Your task to perform on an android device: toggle notification dots Image 0: 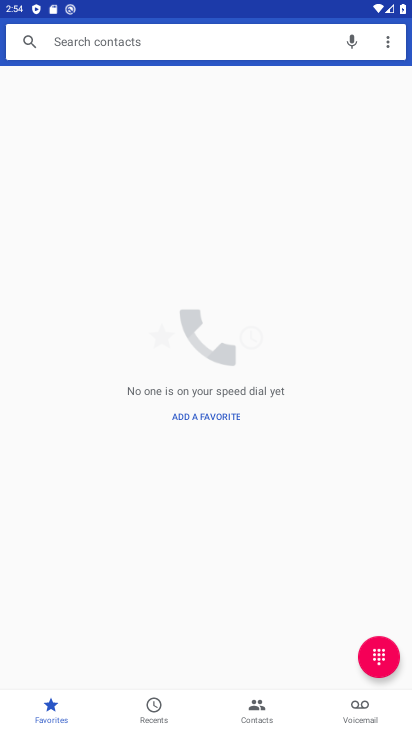
Step 0: press home button
Your task to perform on an android device: toggle notification dots Image 1: 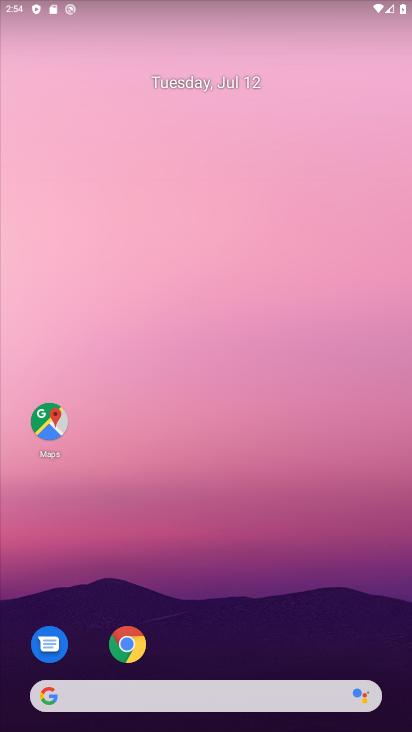
Step 1: click (204, 95)
Your task to perform on an android device: toggle notification dots Image 2: 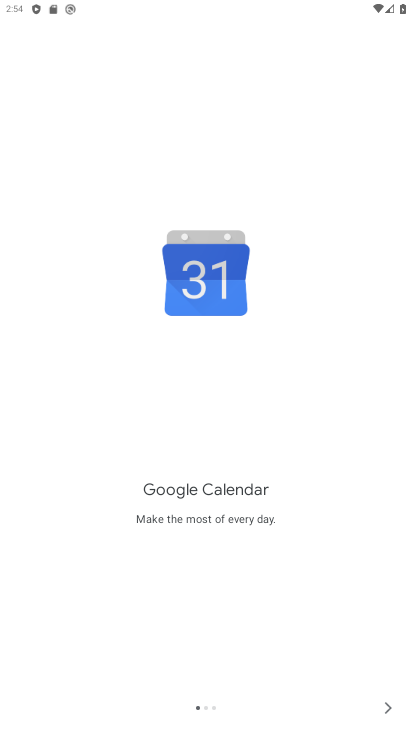
Step 2: press home button
Your task to perform on an android device: toggle notification dots Image 3: 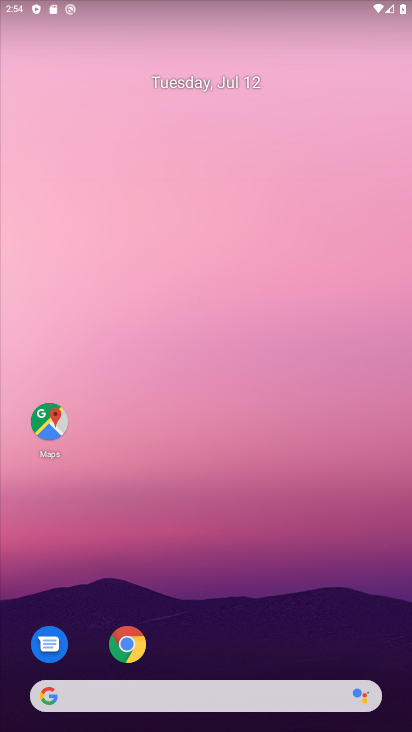
Step 3: drag from (276, 605) to (168, 150)
Your task to perform on an android device: toggle notification dots Image 4: 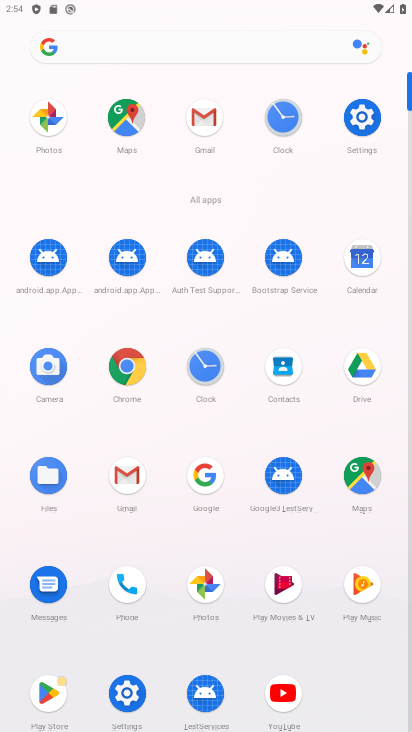
Step 4: click (373, 119)
Your task to perform on an android device: toggle notification dots Image 5: 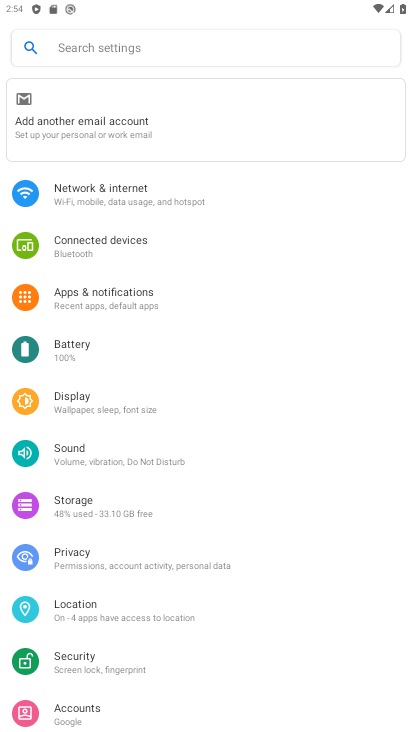
Step 5: click (93, 294)
Your task to perform on an android device: toggle notification dots Image 6: 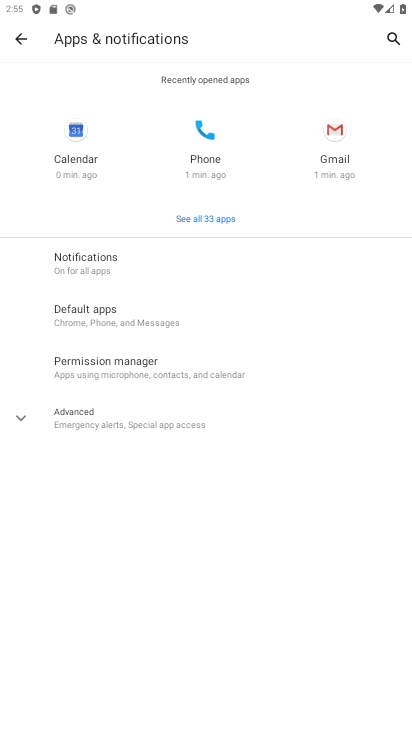
Step 6: click (105, 257)
Your task to perform on an android device: toggle notification dots Image 7: 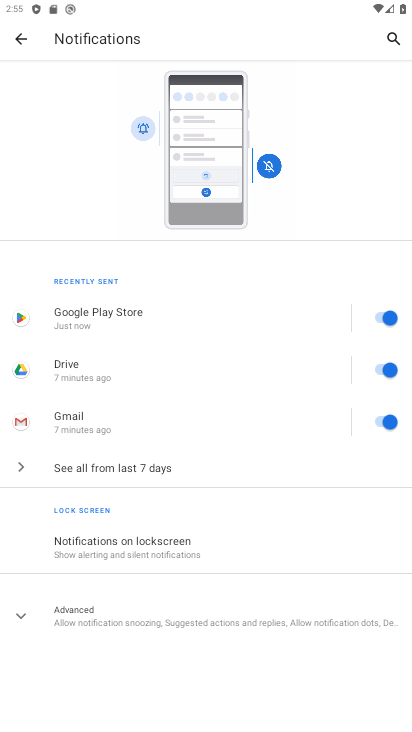
Step 7: click (109, 619)
Your task to perform on an android device: toggle notification dots Image 8: 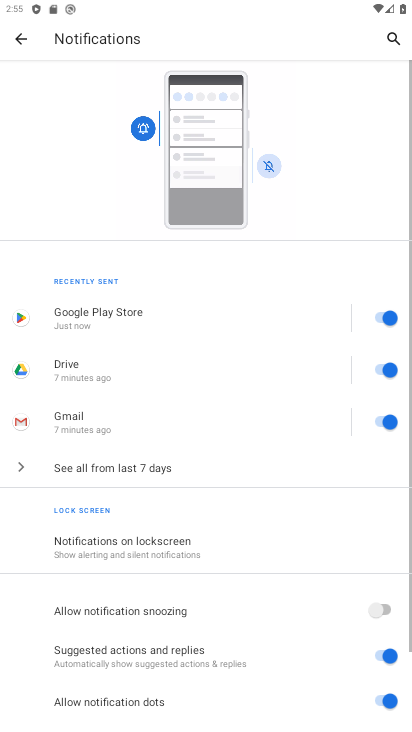
Step 8: drag from (245, 662) to (262, 253)
Your task to perform on an android device: toggle notification dots Image 9: 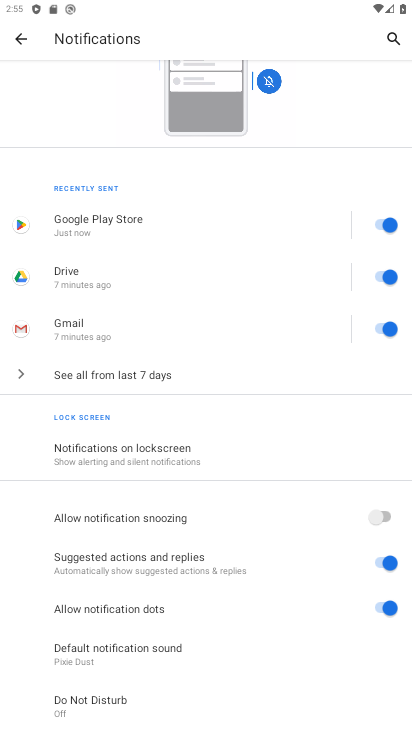
Step 9: click (390, 613)
Your task to perform on an android device: toggle notification dots Image 10: 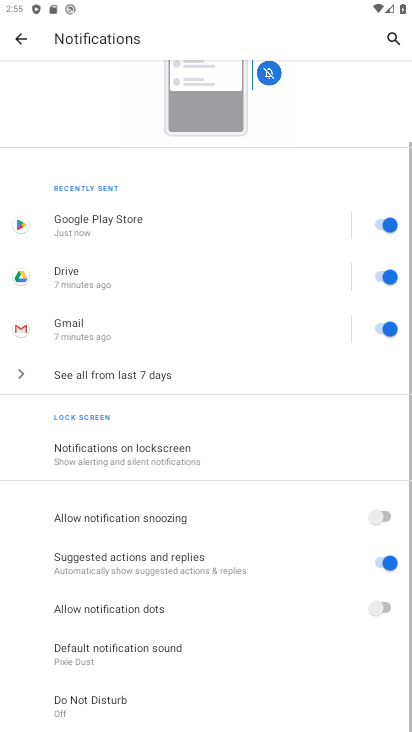
Step 10: task complete